Your task to perform on an android device: turn on improve location accuracy Image 0: 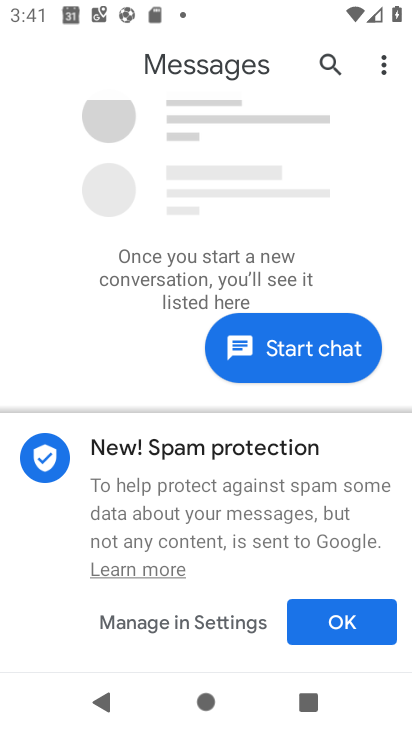
Step 0: press home button
Your task to perform on an android device: turn on improve location accuracy Image 1: 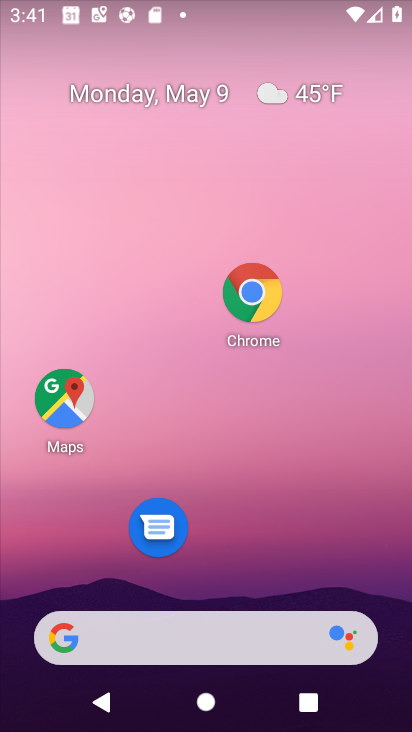
Step 1: drag from (278, 586) to (299, 301)
Your task to perform on an android device: turn on improve location accuracy Image 2: 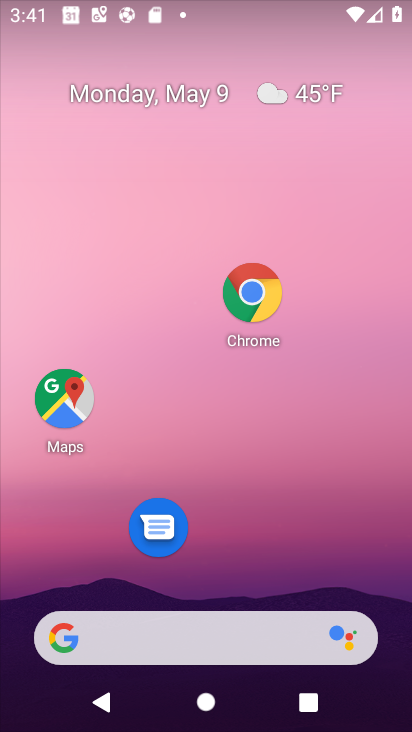
Step 2: drag from (292, 507) to (324, 79)
Your task to perform on an android device: turn on improve location accuracy Image 3: 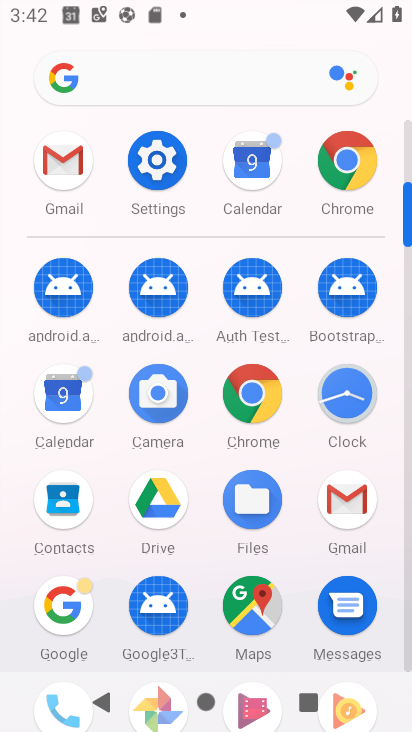
Step 3: click (150, 199)
Your task to perform on an android device: turn on improve location accuracy Image 4: 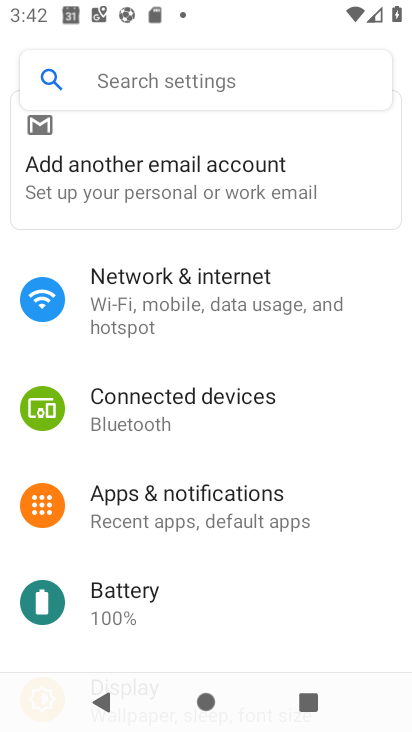
Step 4: drag from (155, 541) to (161, 268)
Your task to perform on an android device: turn on improve location accuracy Image 5: 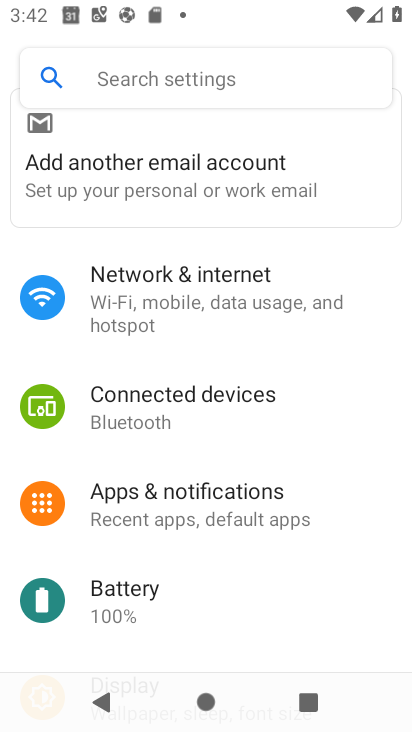
Step 5: drag from (188, 492) to (196, 355)
Your task to perform on an android device: turn on improve location accuracy Image 6: 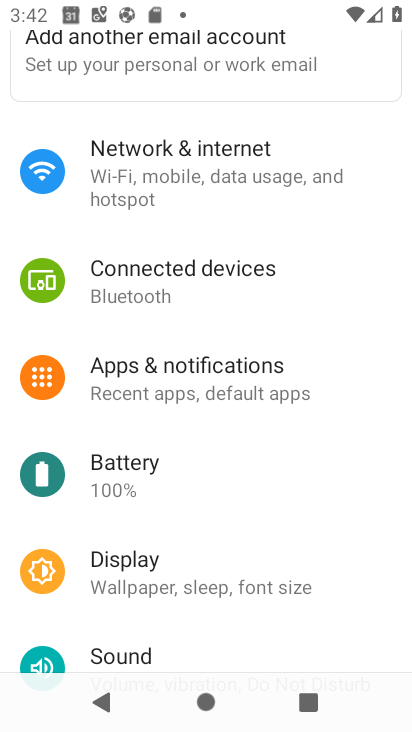
Step 6: drag from (195, 494) to (202, 364)
Your task to perform on an android device: turn on improve location accuracy Image 7: 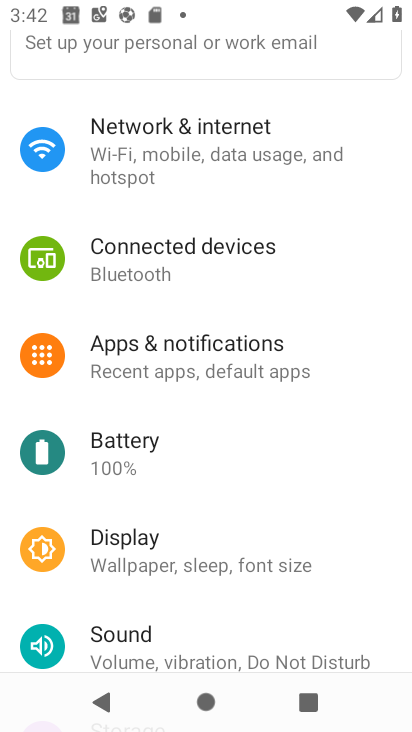
Step 7: drag from (172, 538) to (208, 355)
Your task to perform on an android device: turn on improve location accuracy Image 8: 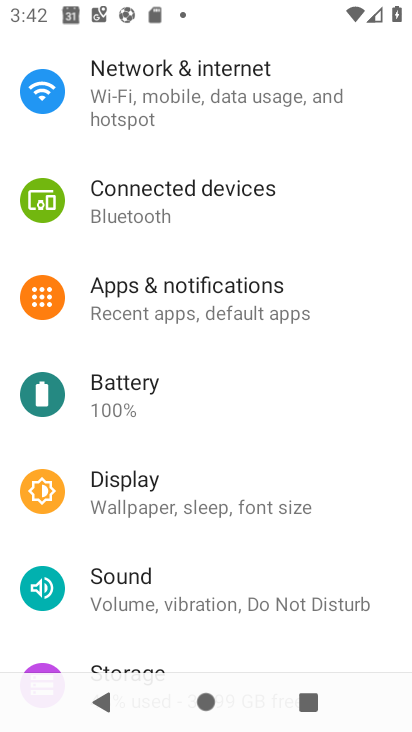
Step 8: drag from (210, 523) to (178, 59)
Your task to perform on an android device: turn on improve location accuracy Image 9: 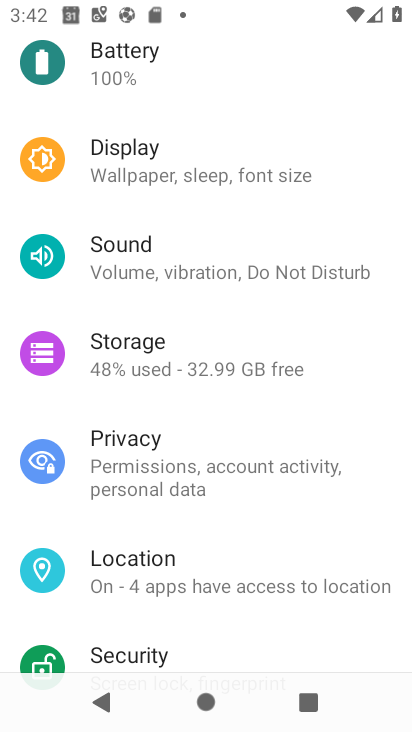
Step 9: click (161, 562)
Your task to perform on an android device: turn on improve location accuracy Image 10: 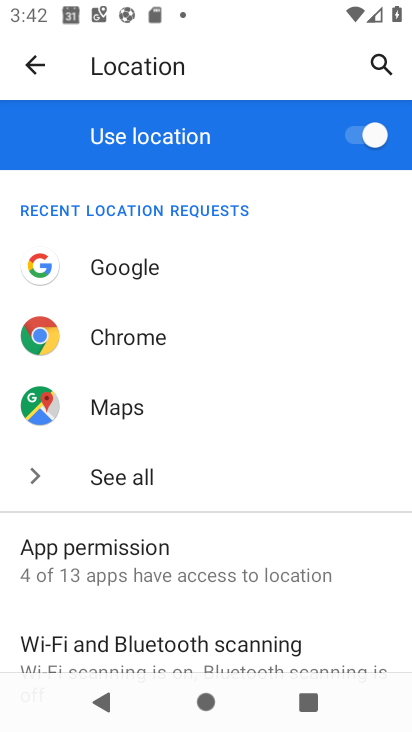
Step 10: drag from (164, 562) to (211, 318)
Your task to perform on an android device: turn on improve location accuracy Image 11: 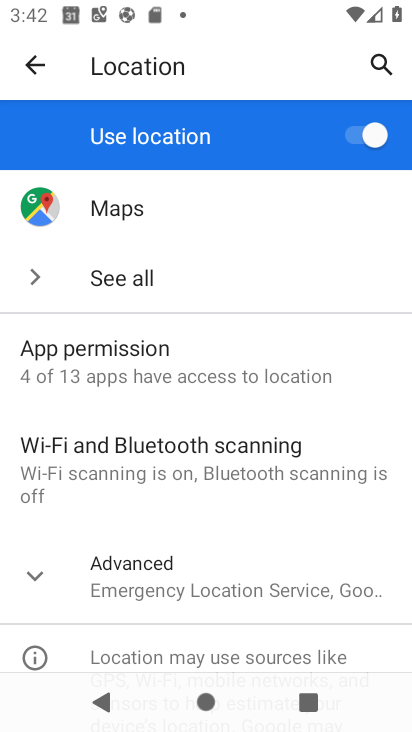
Step 11: click (197, 565)
Your task to perform on an android device: turn on improve location accuracy Image 12: 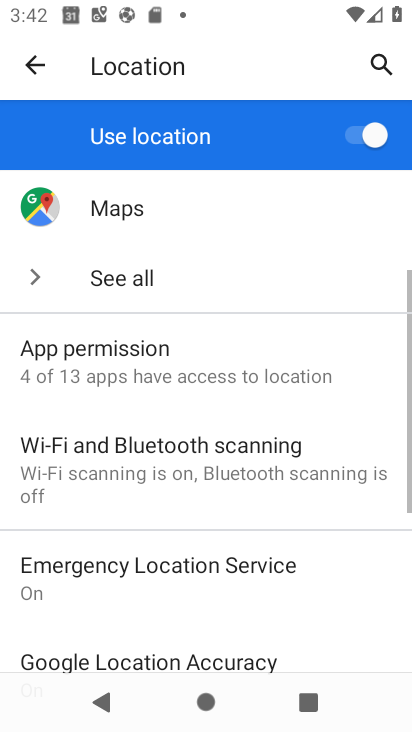
Step 12: drag from (197, 565) to (226, 386)
Your task to perform on an android device: turn on improve location accuracy Image 13: 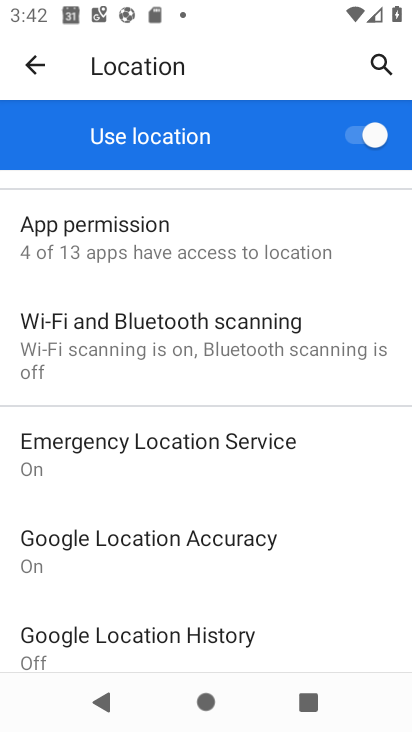
Step 13: click (203, 567)
Your task to perform on an android device: turn on improve location accuracy Image 14: 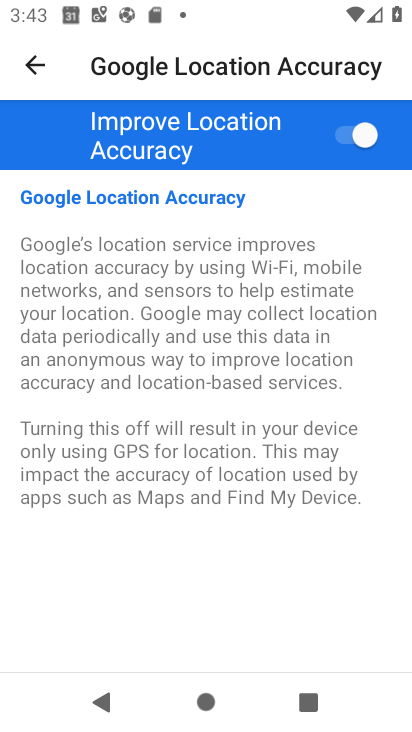
Step 14: task complete